Your task to perform on an android device: Show me recent news Image 0: 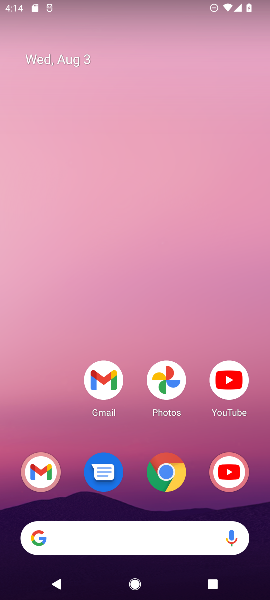
Step 0: drag from (253, 498) to (163, 14)
Your task to perform on an android device: Show me recent news Image 1: 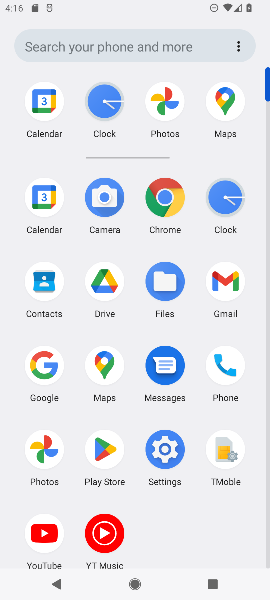
Step 1: click (47, 359)
Your task to perform on an android device: Show me recent news Image 2: 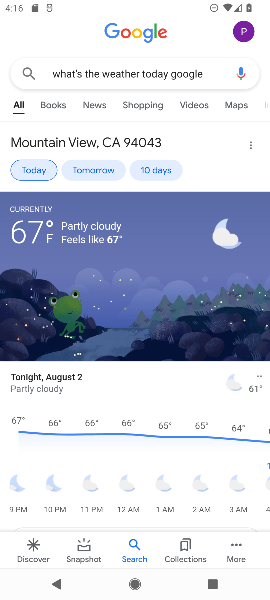
Step 2: press back button
Your task to perform on an android device: Show me recent news Image 3: 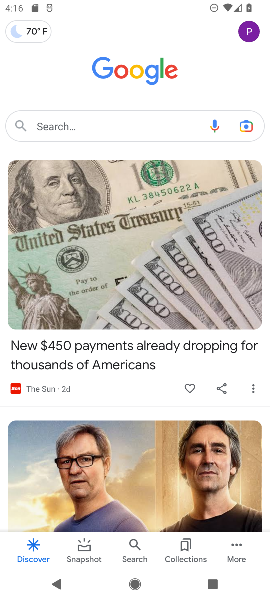
Step 3: click (64, 121)
Your task to perform on an android device: Show me recent news Image 4: 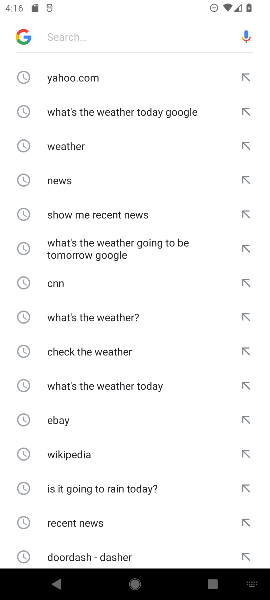
Step 4: type "Show me recent news"
Your task to perform on an android device: Show me recent news Image 5: 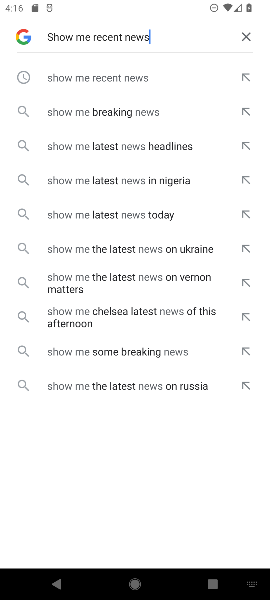
Step 5: click (115, 80)
Your task to perform on an android device: Show me recent news Image 6: 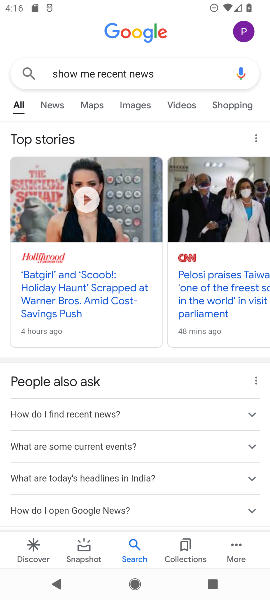
Step 6: task complete